Your task to perform on an android device: open a bookmark in the chrome app Image 0: 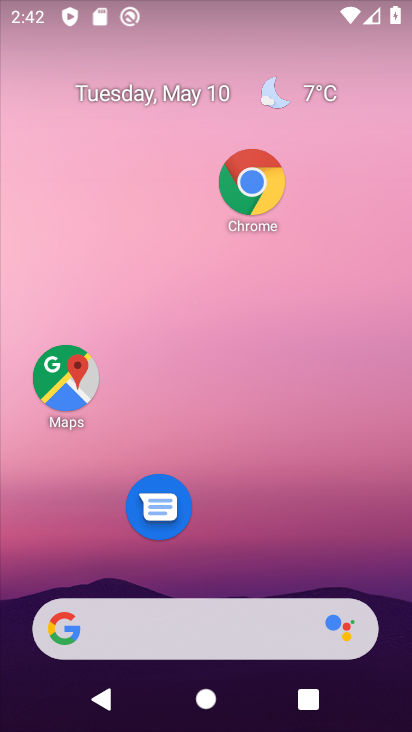
Step 0: drag from (328, 542) to (291, 425)
Your task to perform on an android device: open a bookmark in the chrome app Image 1: 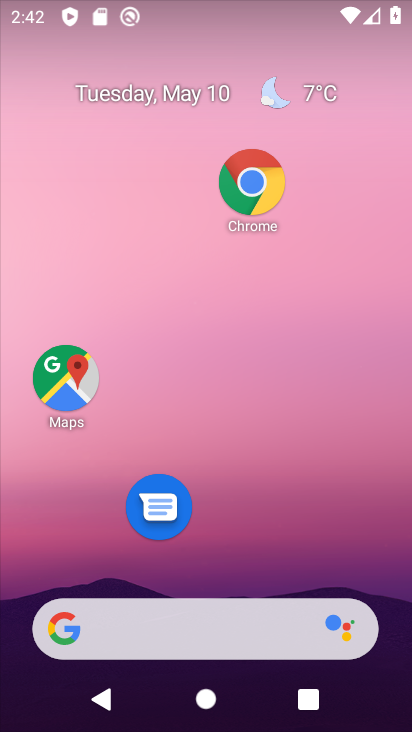
Step 1: click (235, 176)
Your task to perform on an android device: open a bookmark in the chrome app Image 2: 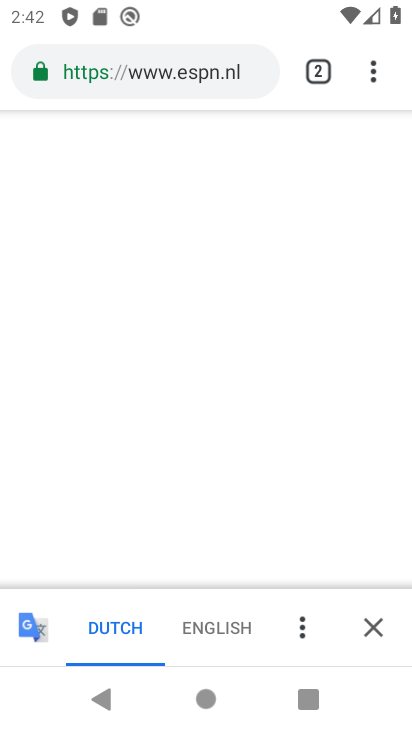
Step 2: click (376, 68)
Your task to perform on an android device: open a bookmark in the chrome app Image 3: 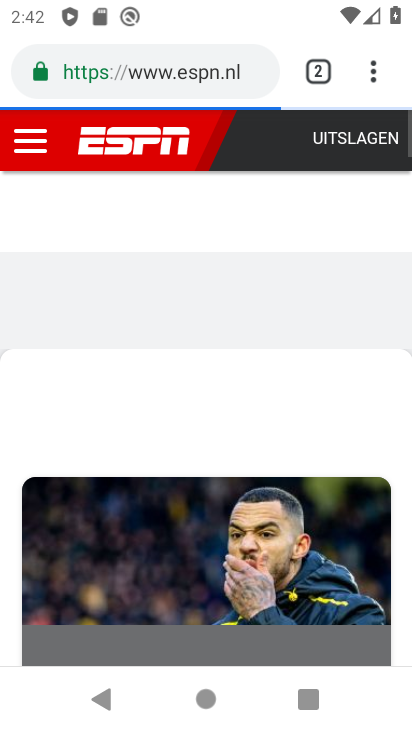
Step 3: click (330, 73)
Your task to perform on an android device: open a bookmark in the chrome app Image 4: 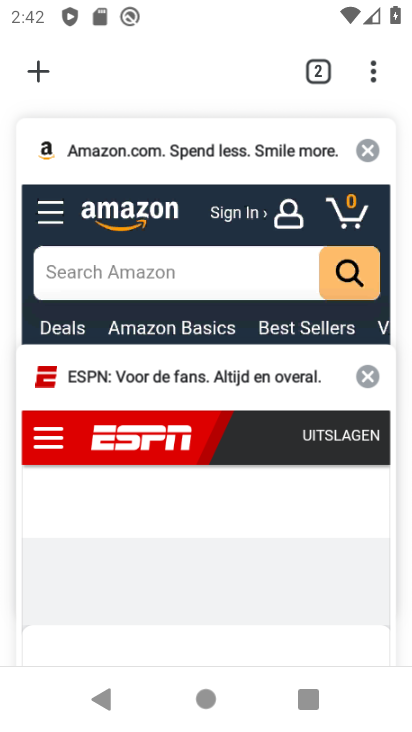
Step 4: click (376, 63)
Your task to perform on an android device: open a bookmark in the chrome app Image 5: 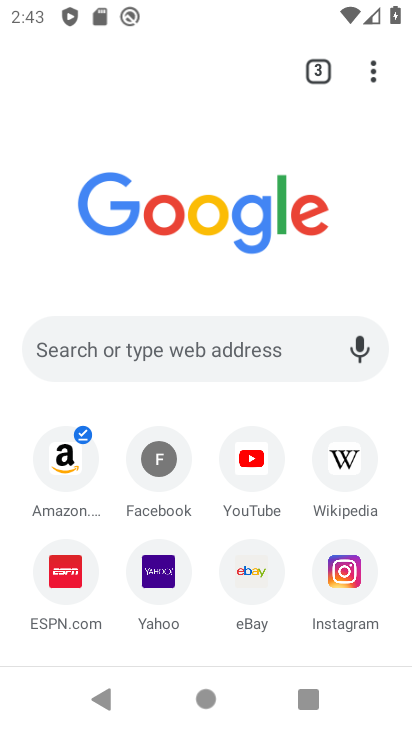
Step 5: click (374, 61)
Your task to perform on an android device: open a bookmark in the chrome app Image 6: 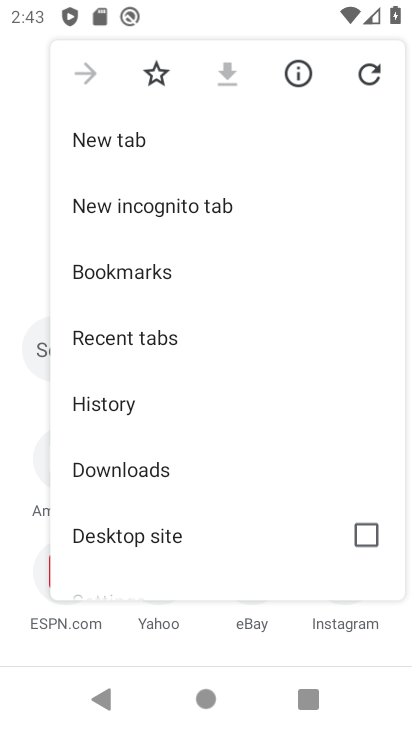
Step 6: click (177, 290)
Your task to perform on an android device: open a bookmark in the chrome app Image 7: 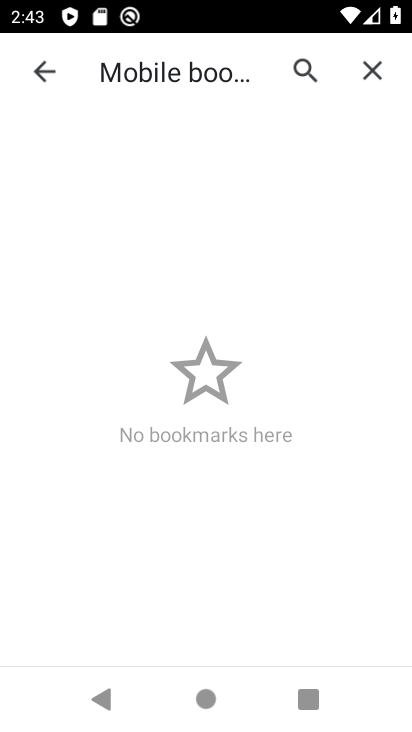
Step 7: task complete